Your task to perform on an android device: What's on my calendar today? Image 0: 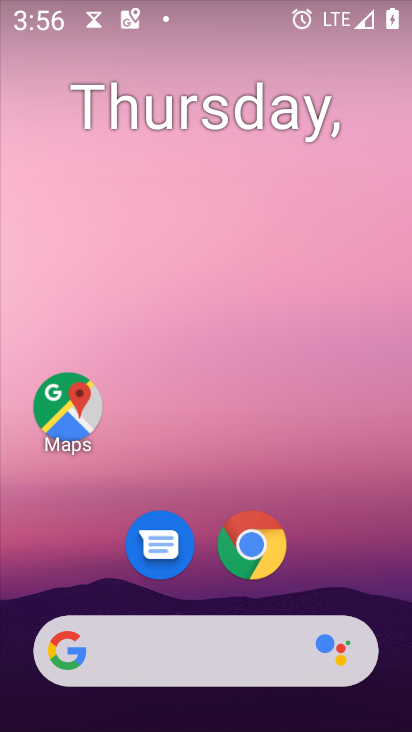
Step 0: drag from (363, 535) to (396, 3)
Your task to perform on an android device: What's on my calendar today? Image 1: 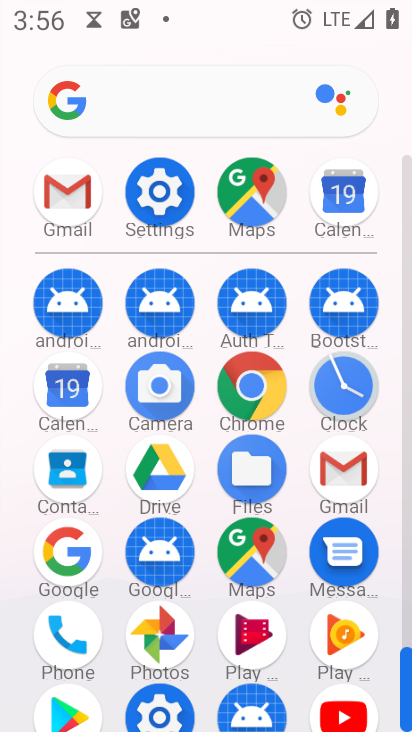
Step 1: click (53, 401)
Your task to perform on an android device: What's on my calendar today? Image 2: 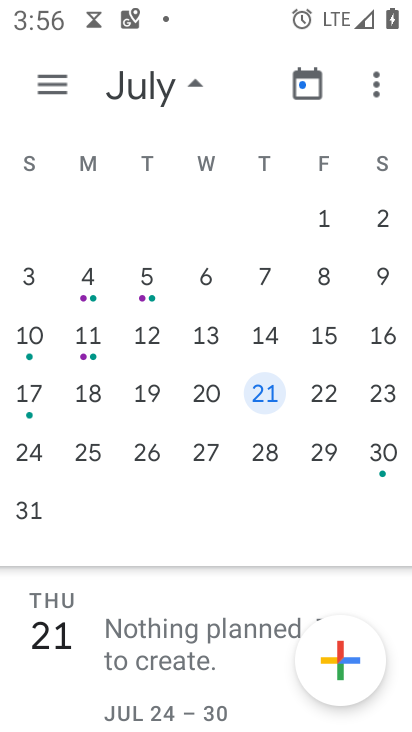
Step 2: task complete